Your task to perform on an android device: change the clock display to show seconds Image 0: 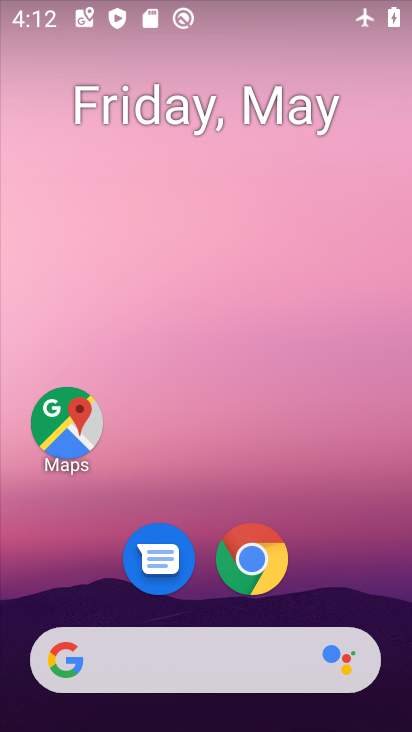
Step 0: drag from (326, 576) to (319, 165)
Your task to perform on an android device: change the clock display to show seconds Image 1: 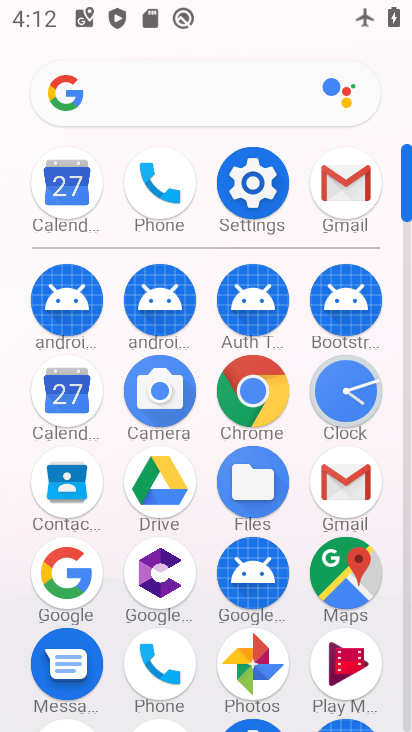
Step 1: click (257, 213)
Your task to perform on an android device: change the clock display to show seconds Image 2: 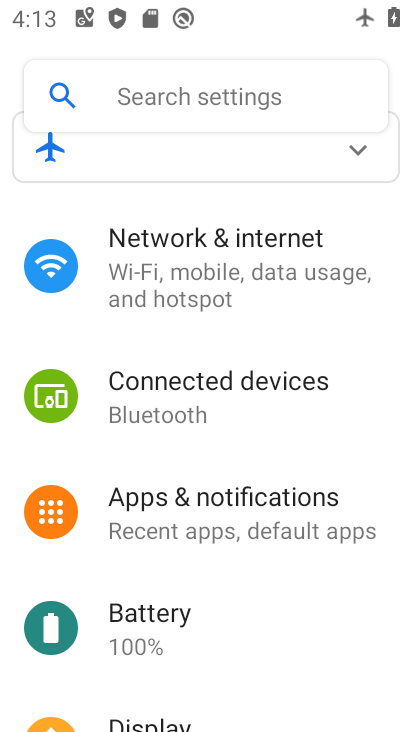
Step 2: click (261, 721)
Your task to perform on an android device: change the clock display to show seconds Image 3: 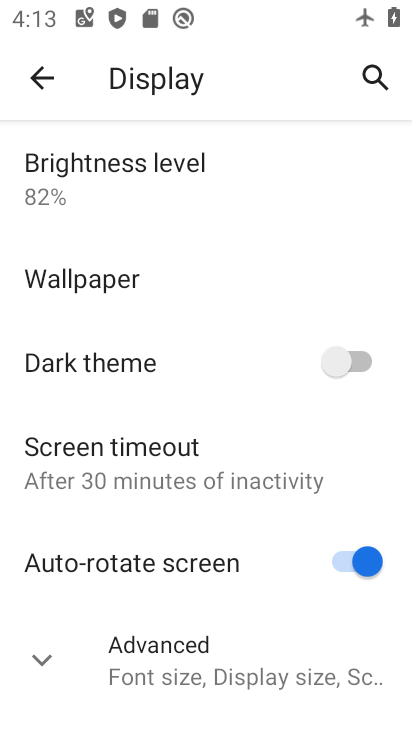
Step 3: click (218, 661)
Your task to perform on an android device: change the clock display to show seconds Image 4: 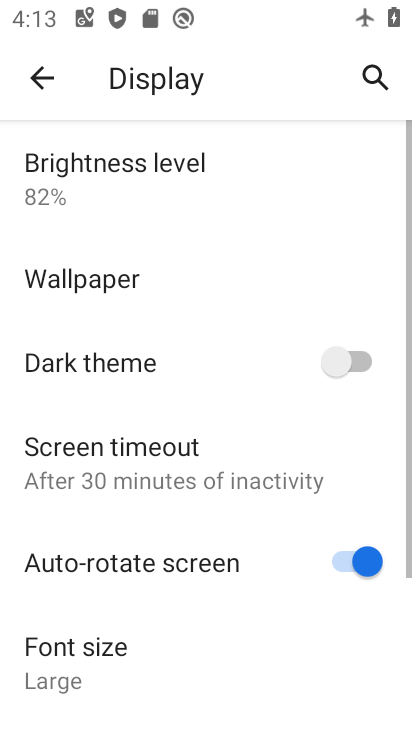
Step 4: click (208, 405)
Your task to perform on an android device: change the clock display to show seconds Image 5: 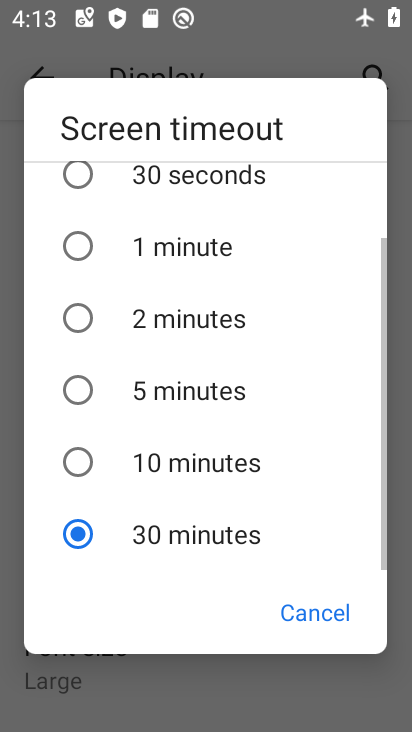
Step 5: click (295, 602)
Your task to perform on an android device: change the clock display to show seconds Image 6: 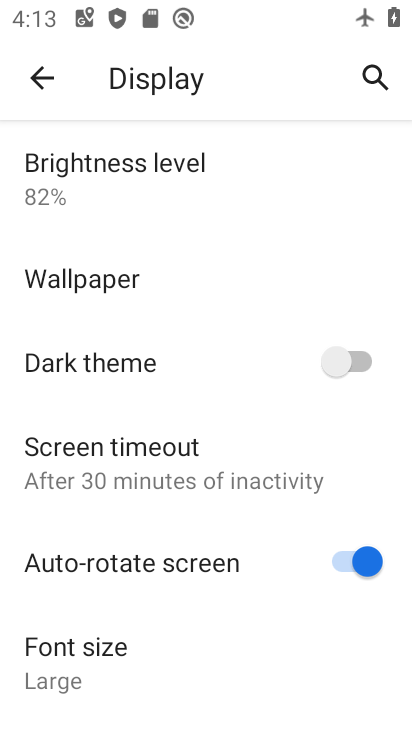
Step 6: drag from (213, 666) to (164, 233)
Your task to perform on an android device: change the clock display to show seconds Image 7: 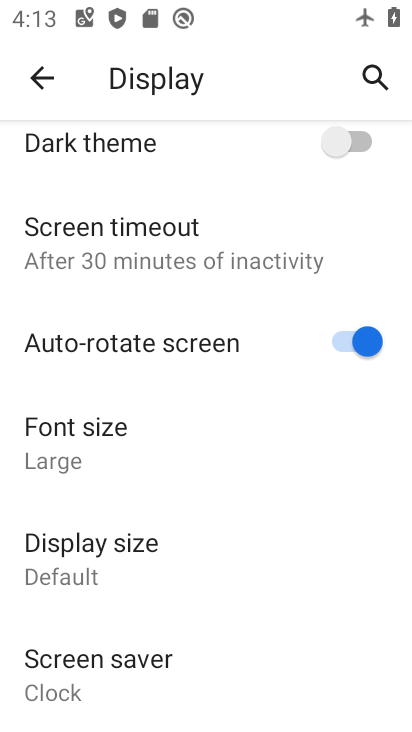
Step 7: press back button
Your task to perform on an android device: change the clock display to show seconds Image 8: 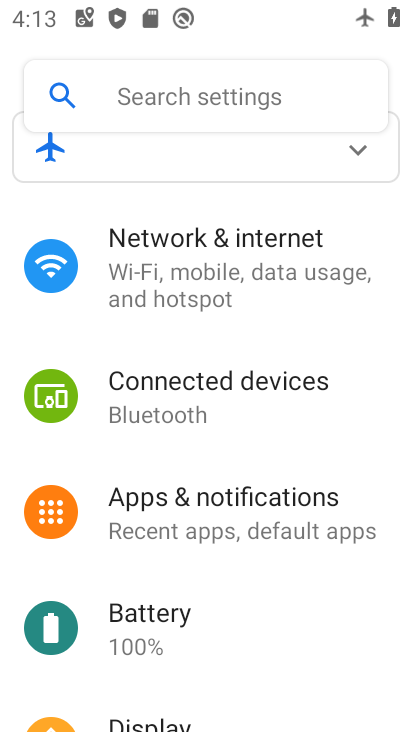
Step 8: drag from (228, 624) to (215, 473)
Your task to perform on an android device: change the clock display to show seconds Image 9: 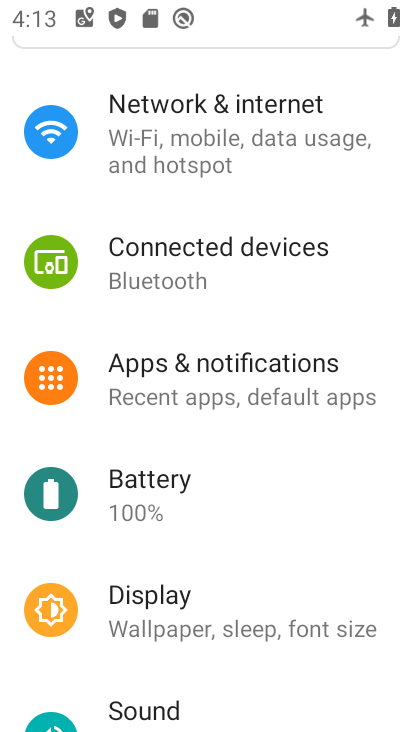
Step 9: drag from (193, 622) to (165, 454)
Your task to perform on an android device: change the clock display to show seconds Image 10: 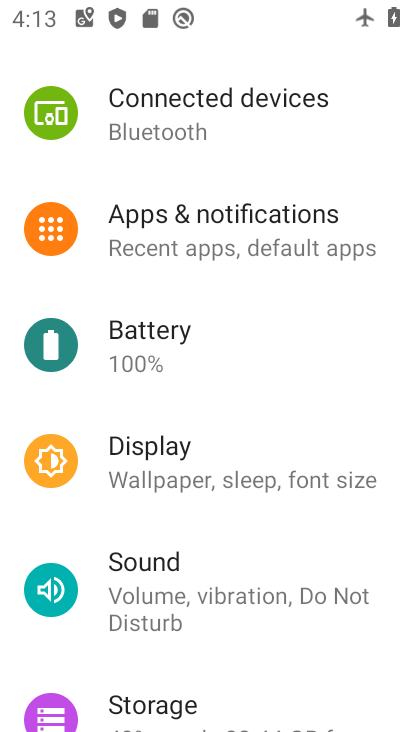
Step 10: drag from (195, 627) to (175, 303)
Your task to perform on an android device: change the clock display to show seconds Image 11: 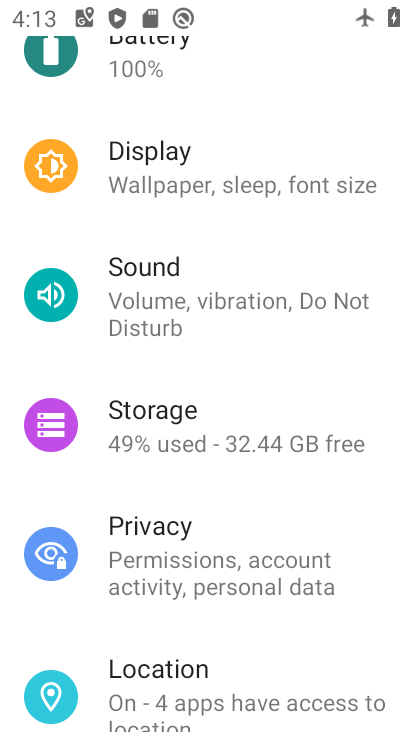
Step 11: press home button
Your task to perform on an android device: change the clock display to show seconds Image 12: 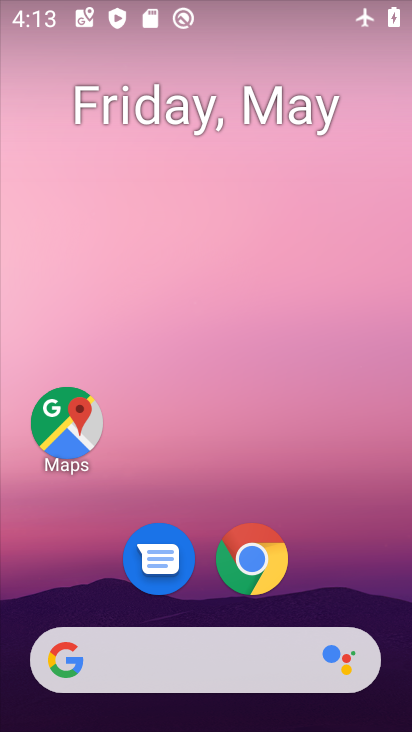
Step 12: drag from (337, 607) to (295, 286)
Your task to perform on an android device: change the clock display to show seconds Image 13: 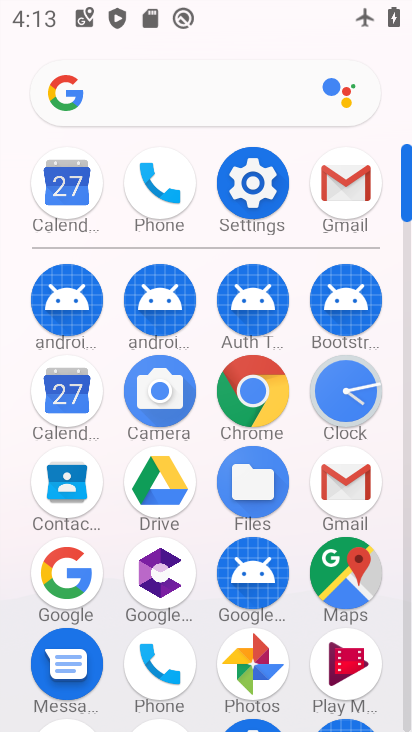
Step 13: click (347, 385)
Your task to perform on an android device: change the clock display to show seconds Image 14: 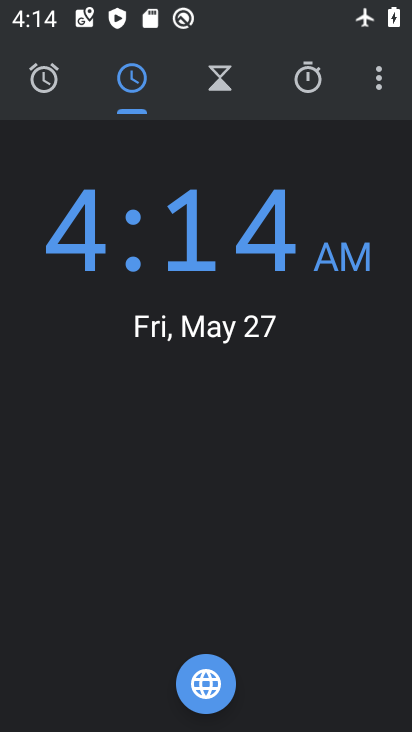
Step 14: click (357, 73)
Your task to perform on an android device: change the clock display to show seconds Image 15: 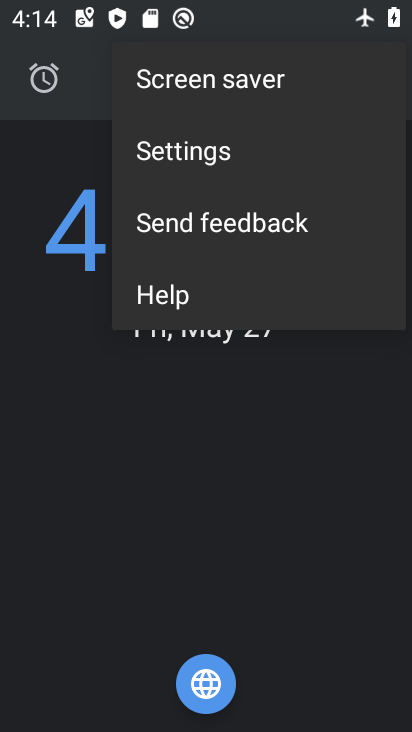
Step 15: click (256, 163)
Your task to perform on an android device: change the clock display to show seconds Image 16: 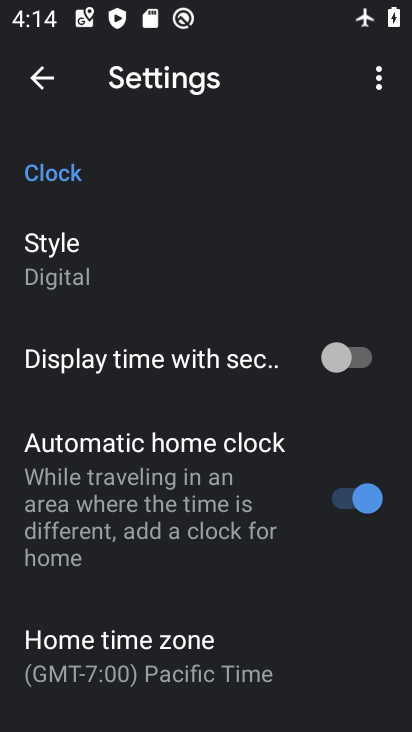
Step 16: click (337, 346)
Your task to perform on an android device: change the clock display to show seconds Image 17: 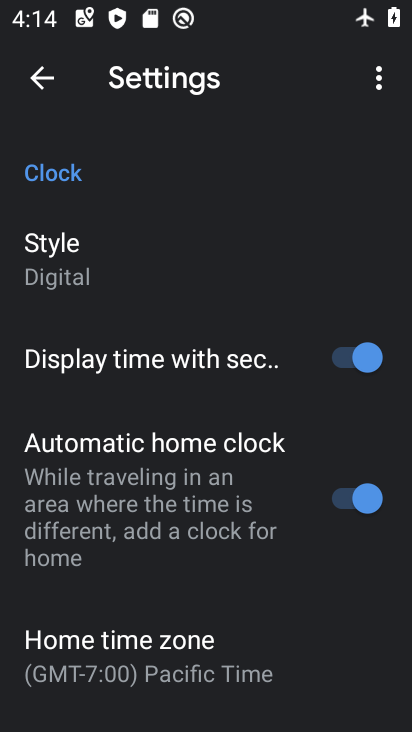
Step 17: task complete